Your task to perform on an android device: Go to ESPN.com Image 0: 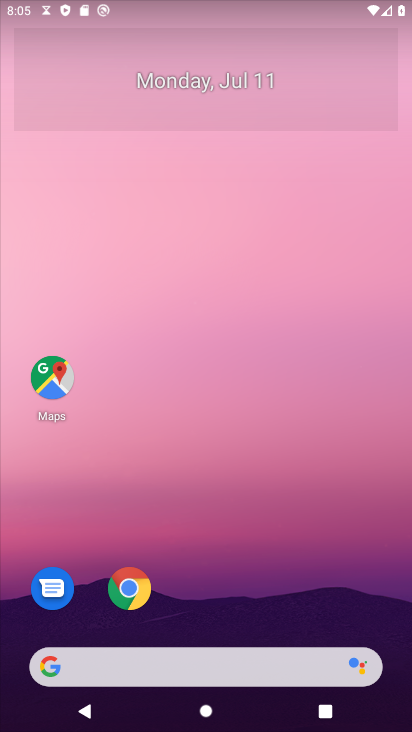
Step 0: click (249, 681)
Your task to perform on an android device: Go to ESPN.com Image 1: 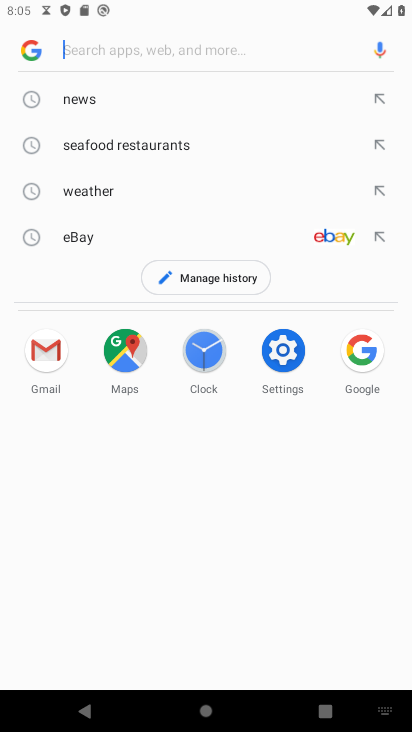
Step 1: type "ESPN.com"
Your task to perform on an android device: Go to ESPN.com Image 2: 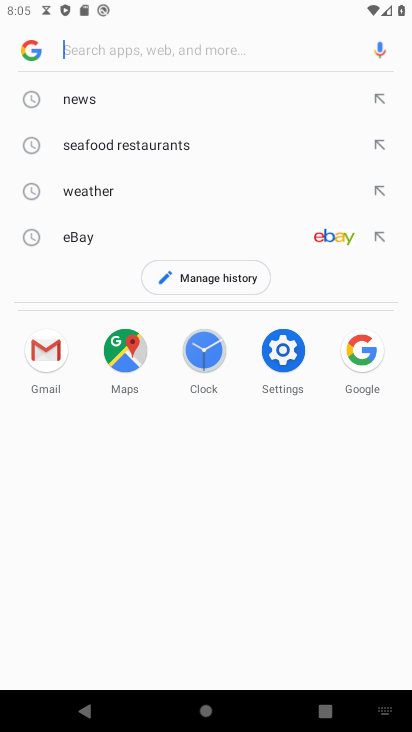
Step 2: click (132, 53)
Your task to perform on an android device: Go to ESPN.com Image 3: 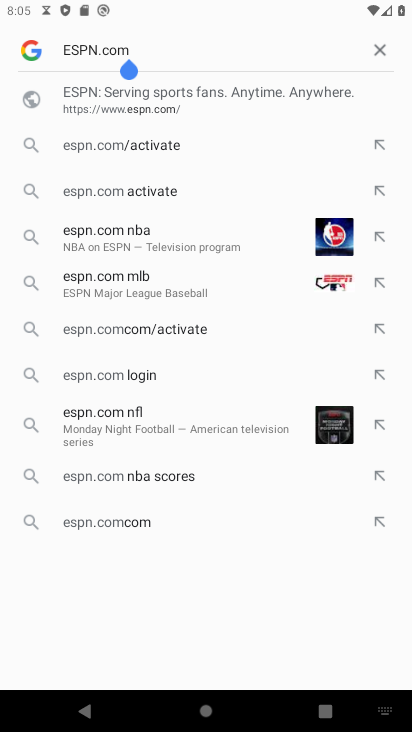
Step 3: click (244, 93)
Your task to perform on an android device: Go to ESPN.com Image 4: 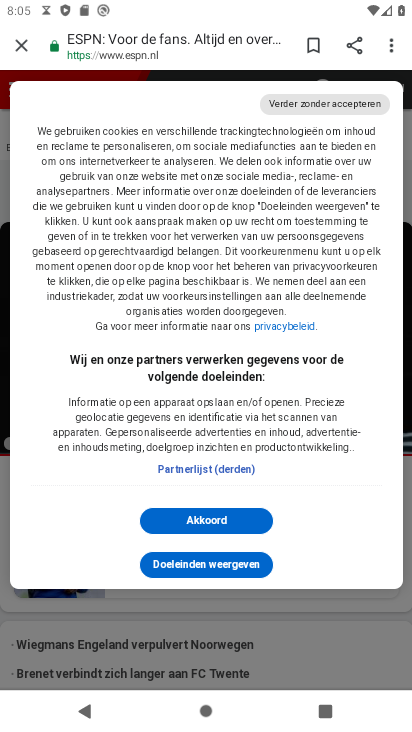
Step 4: click (219, 514)
Your task to perform on an android device: Go to ESPN.com Image 5: 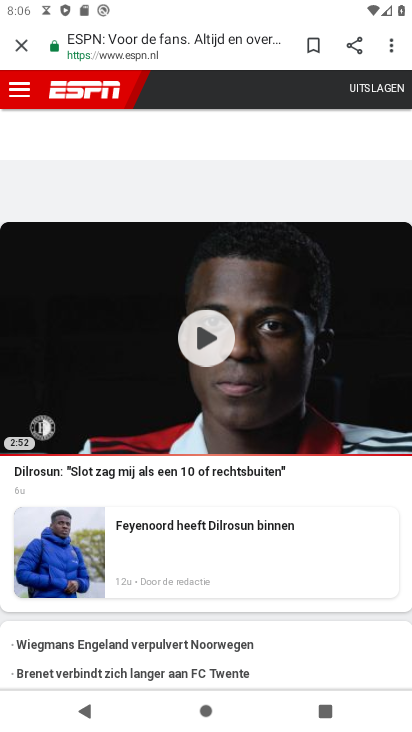
Step 5: task complete